Your task to perform on an android device: Go to Amazon Image 0: 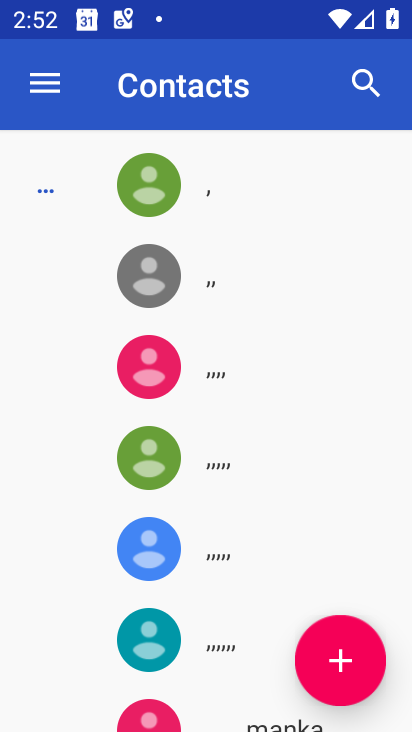
Step 0: press home button
Your task to perform on an android device: Go to Amazon Image 1: 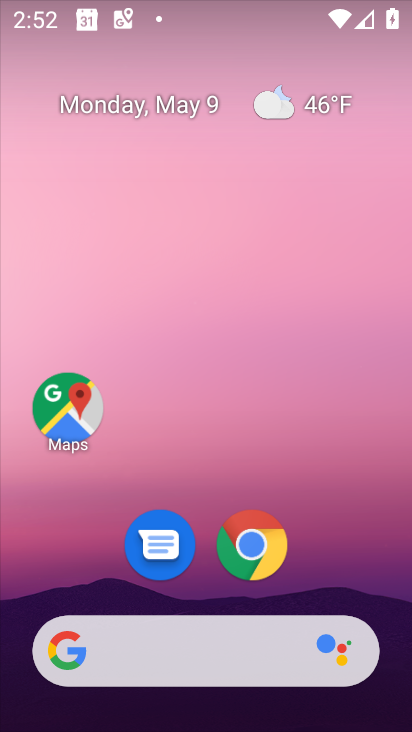
Step 1: click (231, 554)
Your task to perform on an android device: Go to Amazon Image 2: 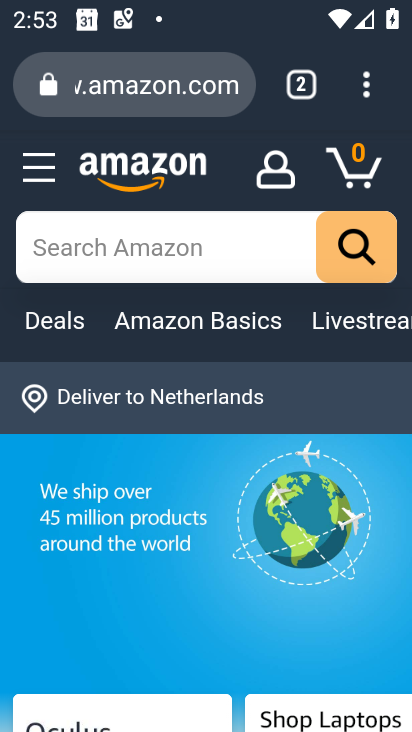
Step 2: task complete